Your task to perform on an android device: Open maps Image 0: 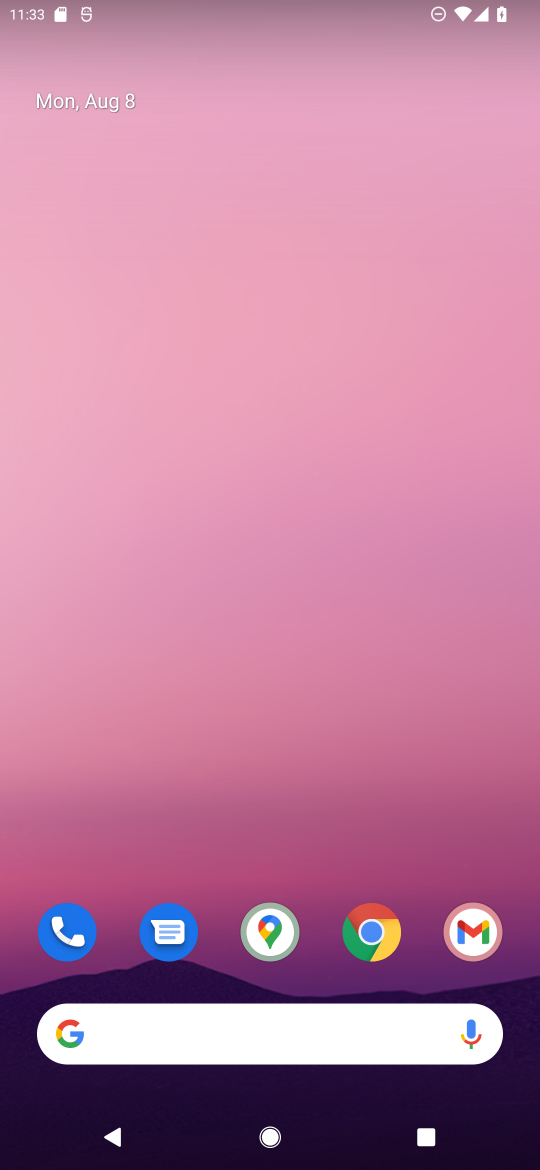
Step 0: click (287, 928)
Your task to perform on an android device: Open maps Image 1: 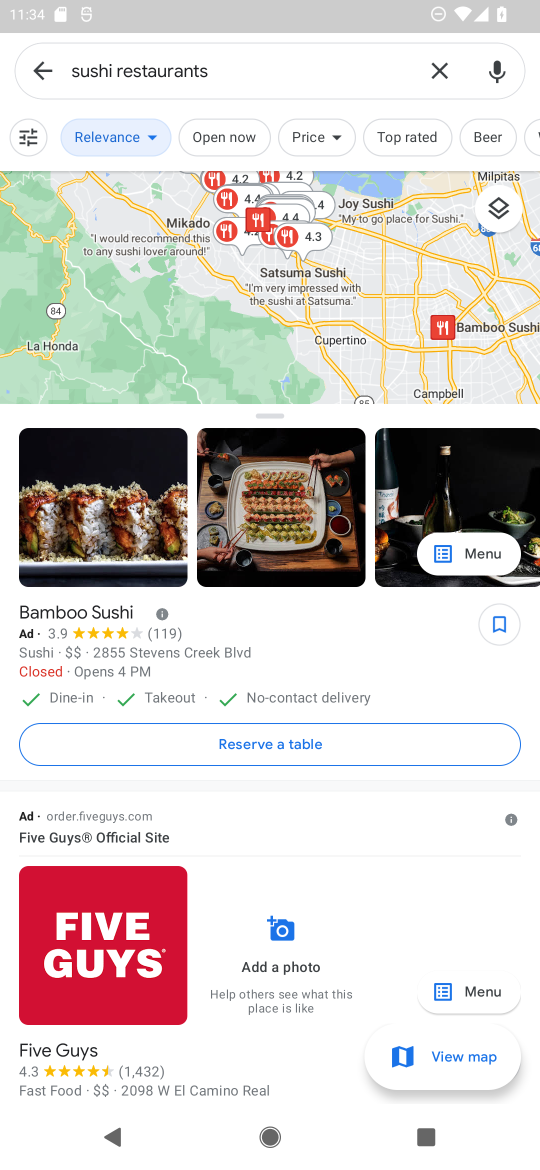
Step 1: task complete